Your task to perform on an android device: turn off picture-in-picture Image 0: 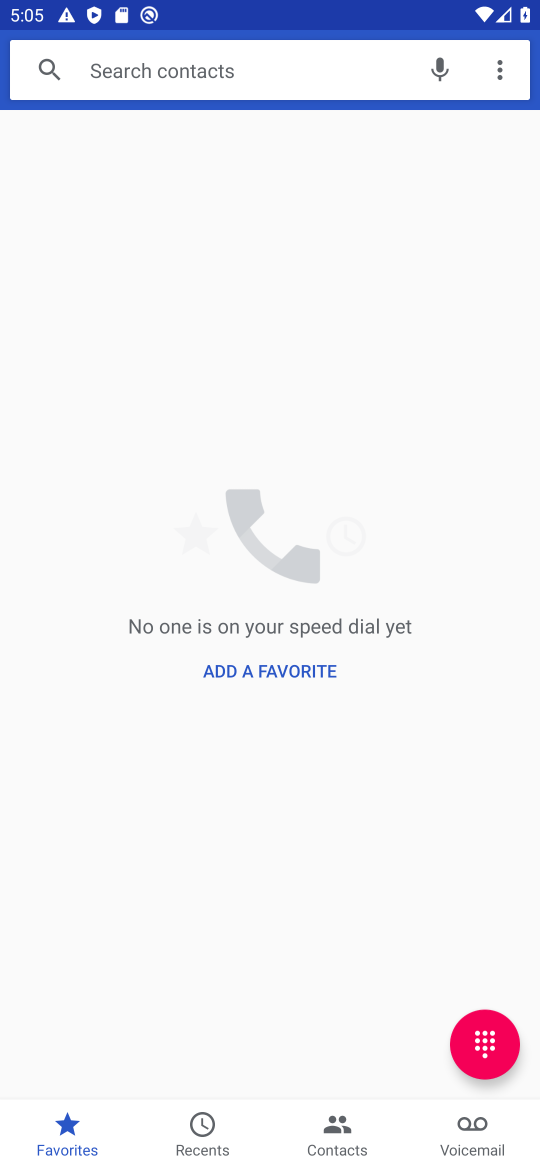
Step 0: press home button
Your task to perform on an android device: turn off picture-in-picture Image 1: 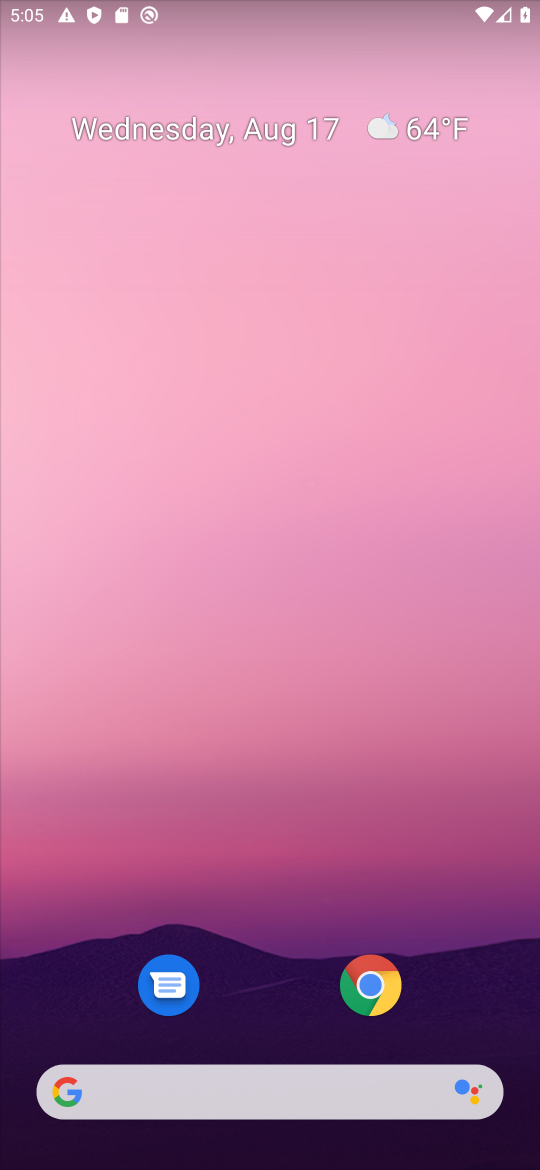
Step 1: click (374, 988)
Your task to perform on an android device: turn off picture-in-picture Image 2: 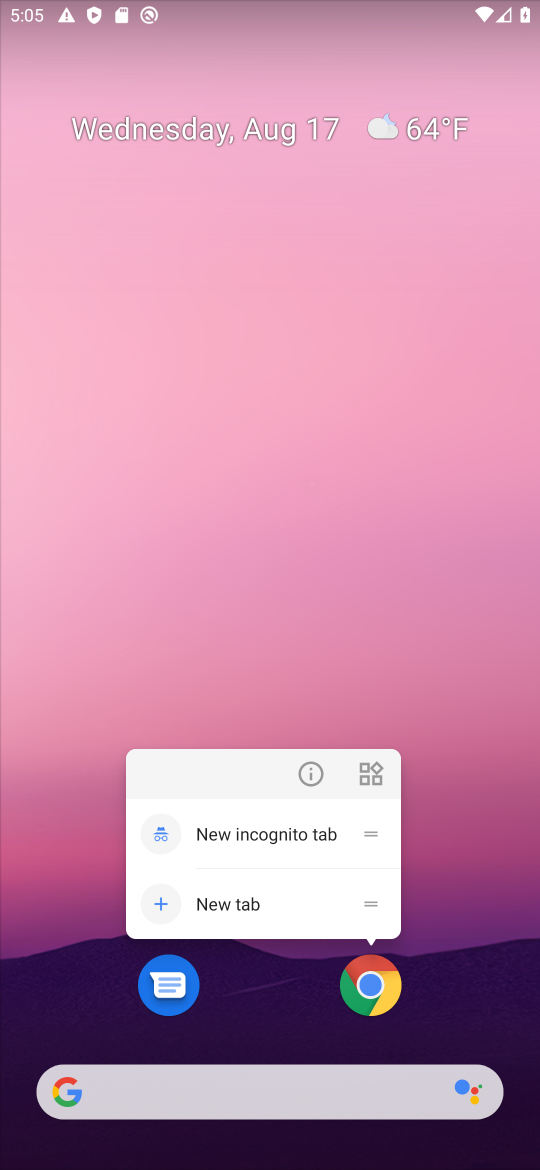
Step 2: click (310, 773)
Your task to perform on an android device: turn off picture-in-picture Image 3: 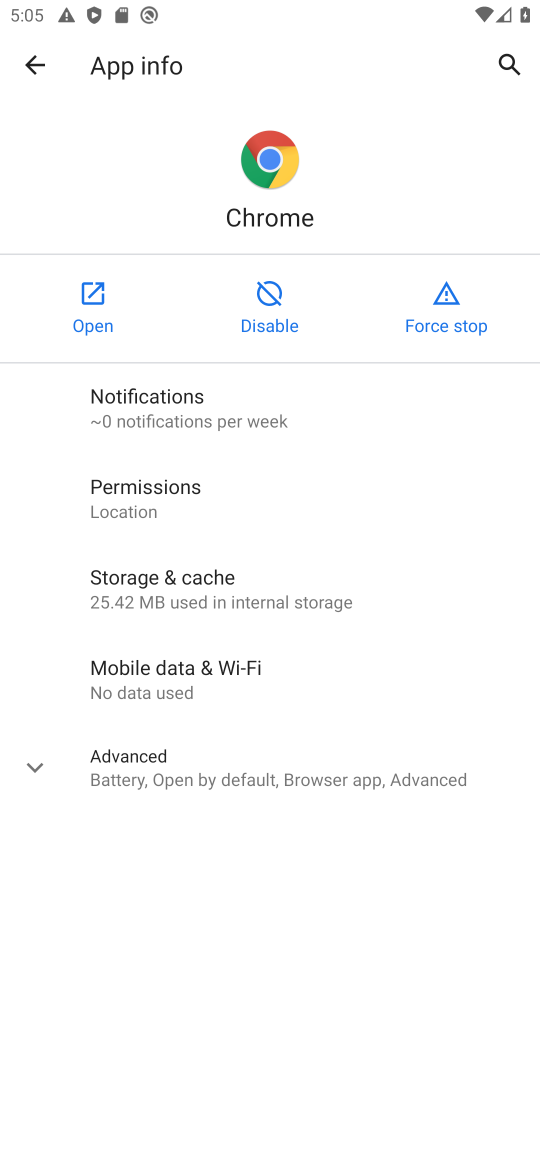
Step 3: click (173, 773)
Your task to perform on an android device: turn off picture-in-picture Image 4: 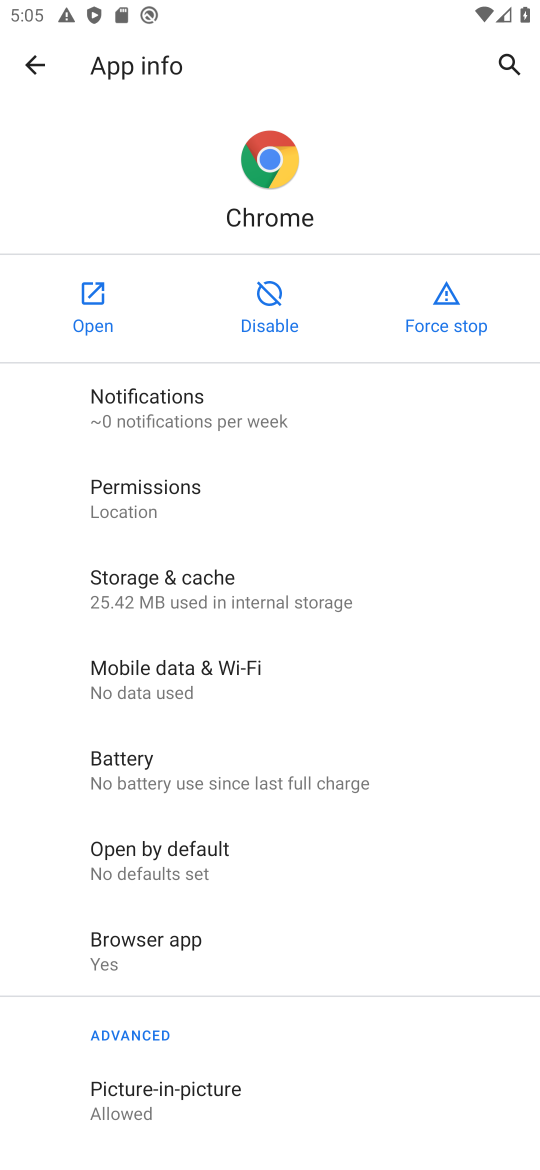
Step 4: click (178, 1085)
Your task to perform on an android device: turn off picture-in-picture Image 5: 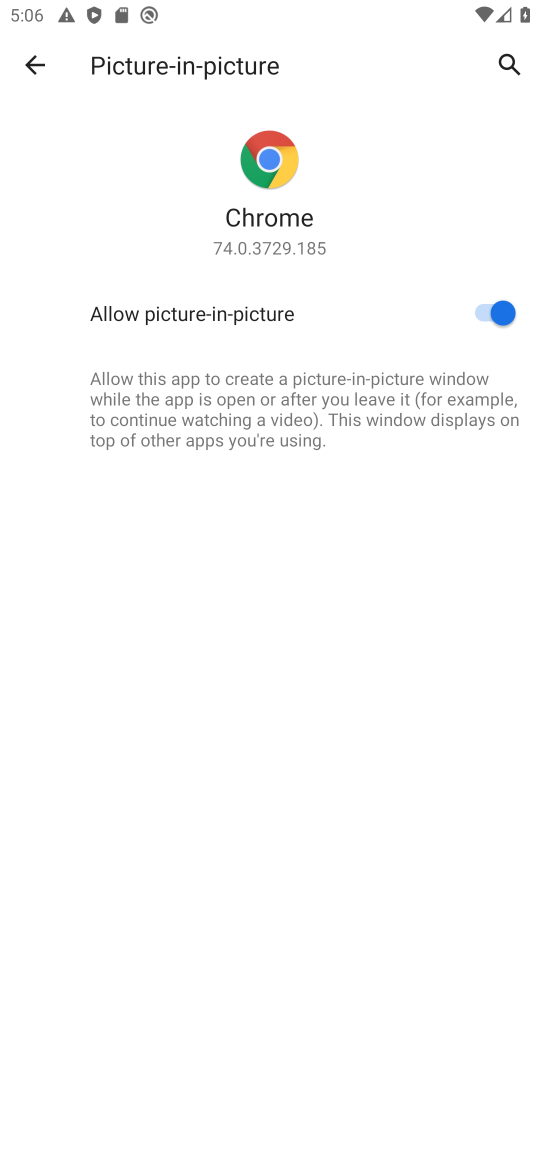
Step 5: click (484, 317)
Your task to perform on an android device: turn off picture-in-picture Image 6: 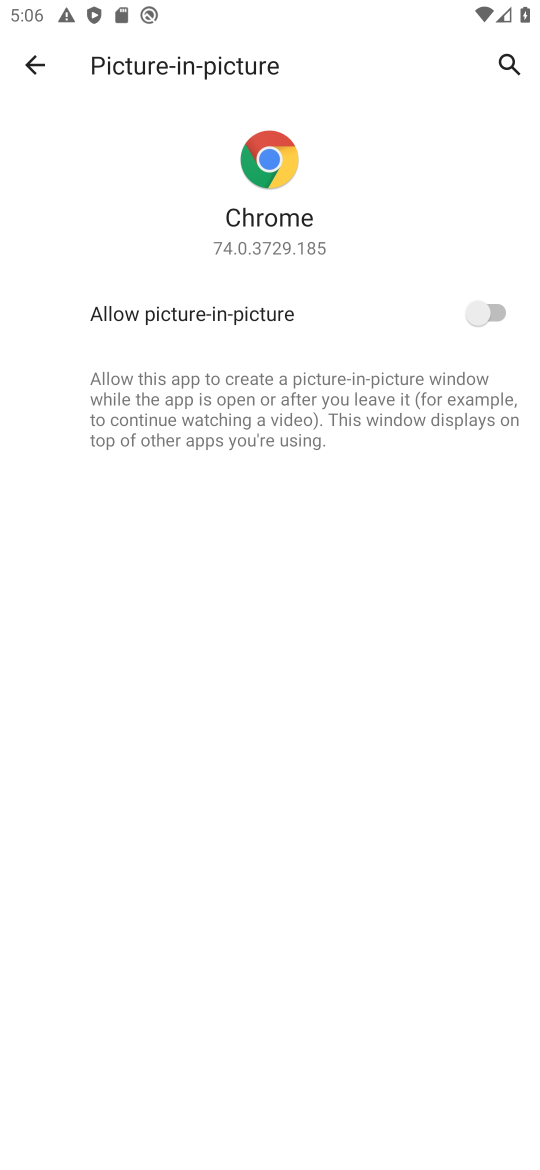
Step 6: task complete